Your task to perform on an android device: Search for hotels in Austin Image 0: 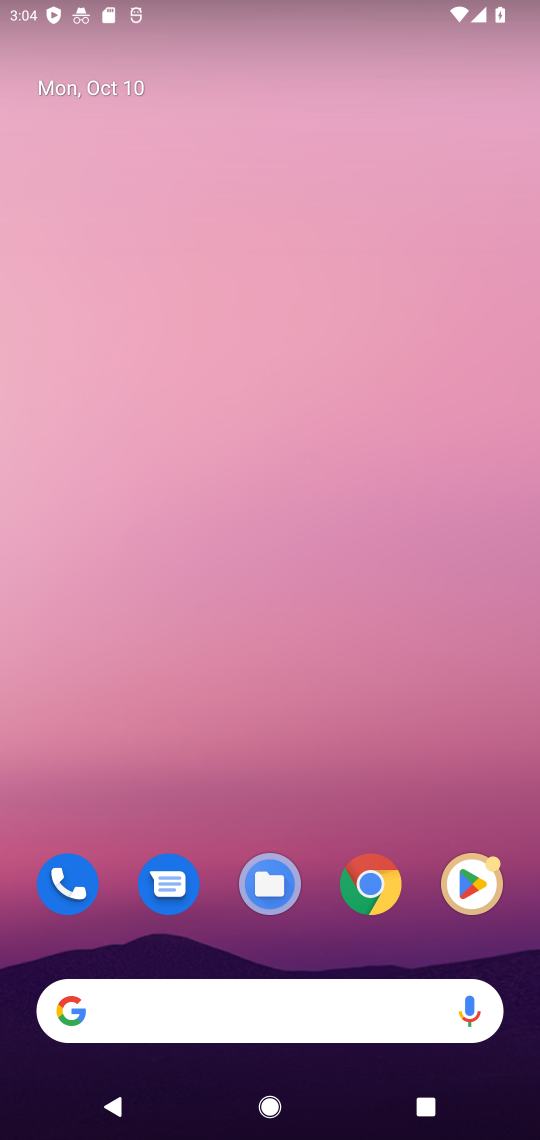
Step 0: click (234, 1024)
Your task to perform on an android device: Search for hotels in Austin Image 1: 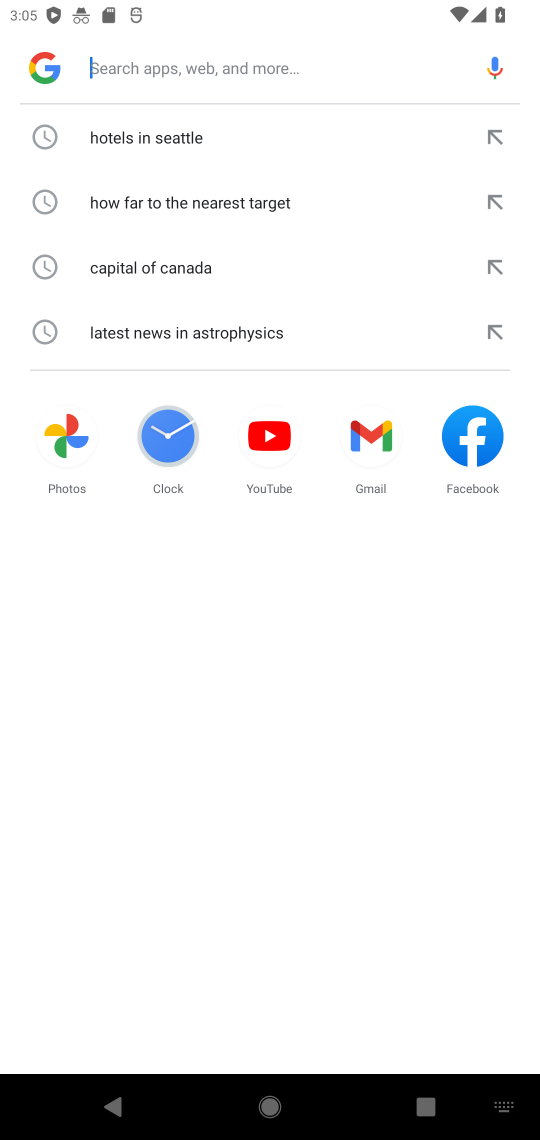
Step 1: type "hotels in Austin"
Your task to perform on an android device: Search for hotels in Austin Image 2: 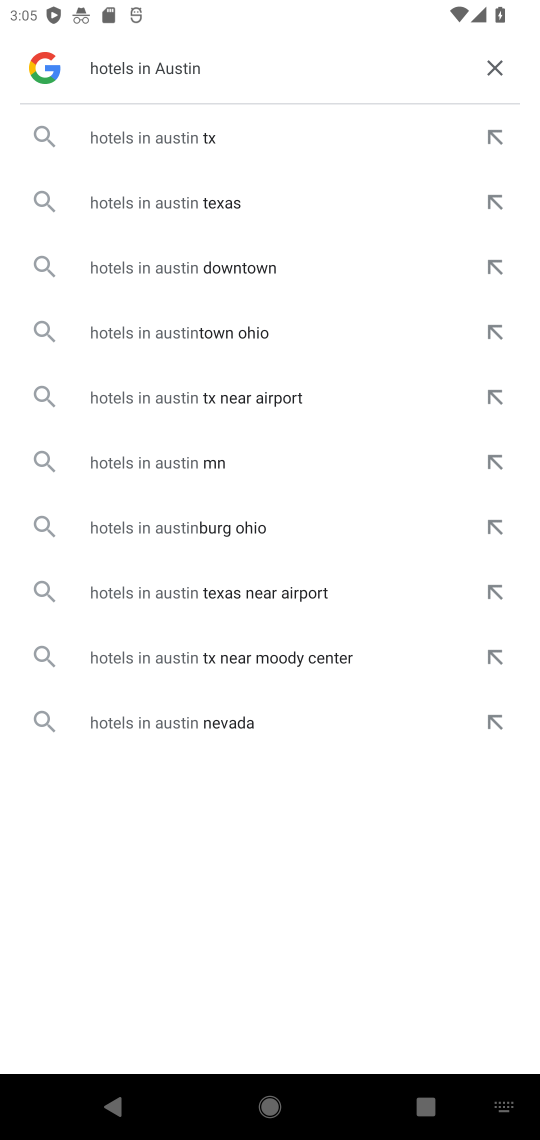
Step 2: click (159, 135)
Your task to perform on an android device: Search for hotels in Austin Image 3: 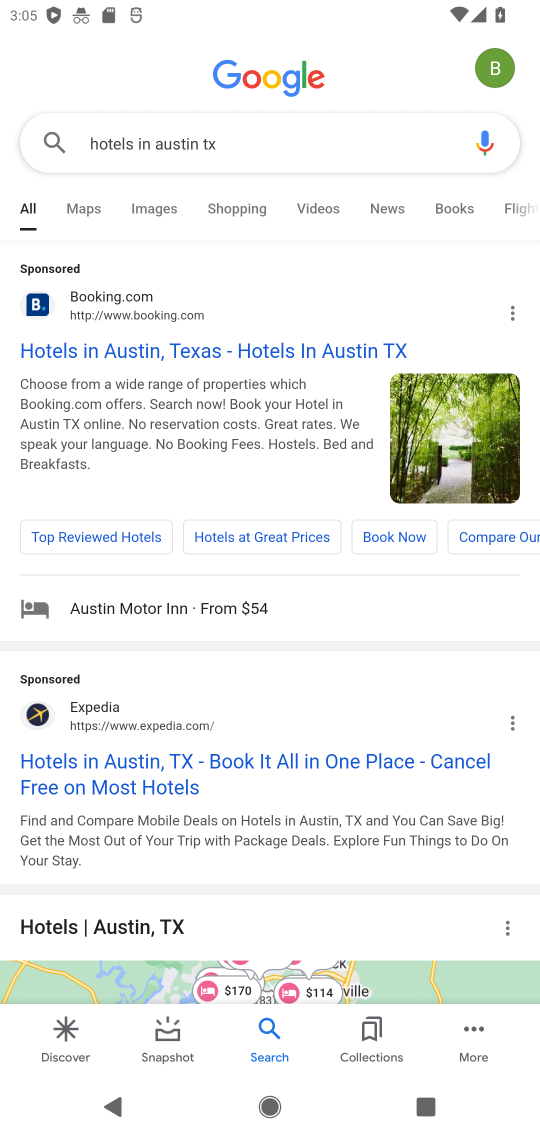
Step 3: click (165, 349)
Your task to perform on an android device: Search for hotels in Austin Image 4: 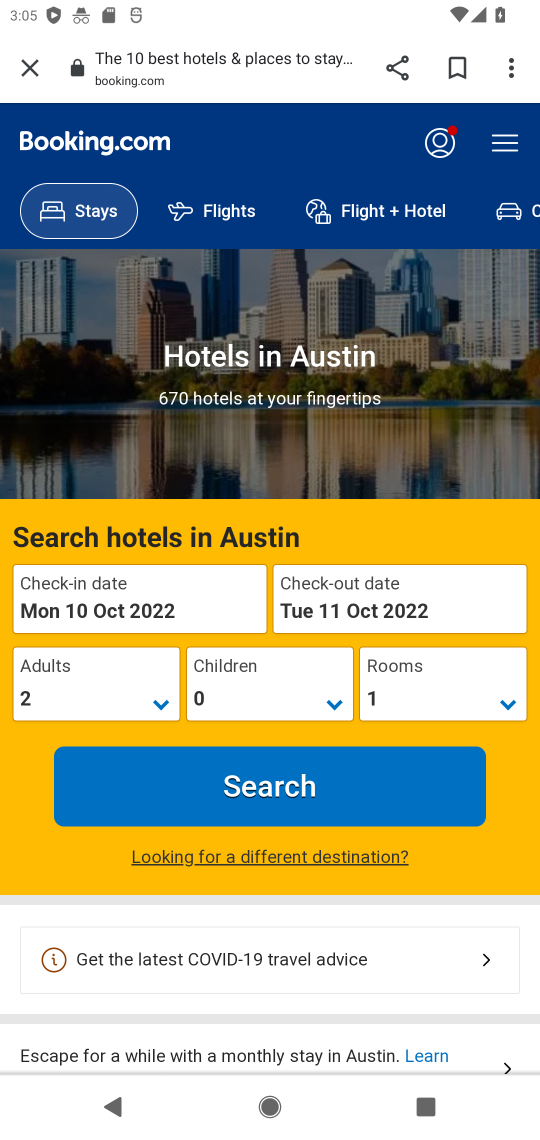
Step 4: click (280, 807)
Your task to perform on an android device: Search for hotels in Austin Image 5: 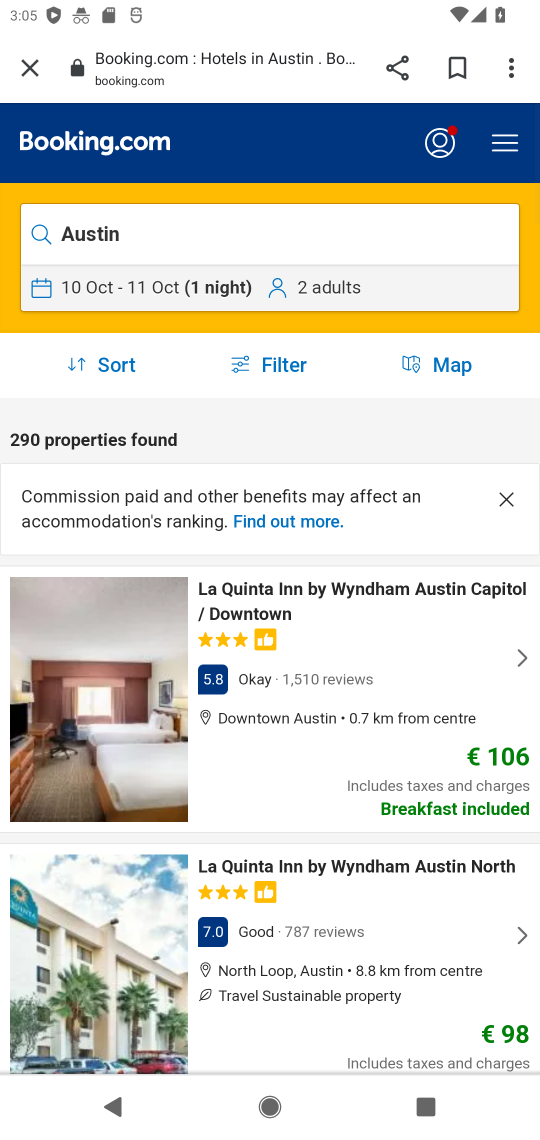
Step 5: task complete